Your task to perform on an android device: Open the web browser Image 0: 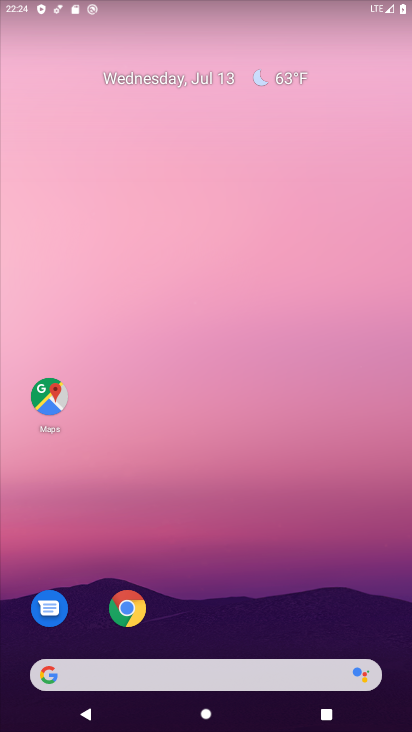
Step 0: drag from (207, 595) to (242, 5)
Your task to perform on an android device: Open the web browser Image 1: 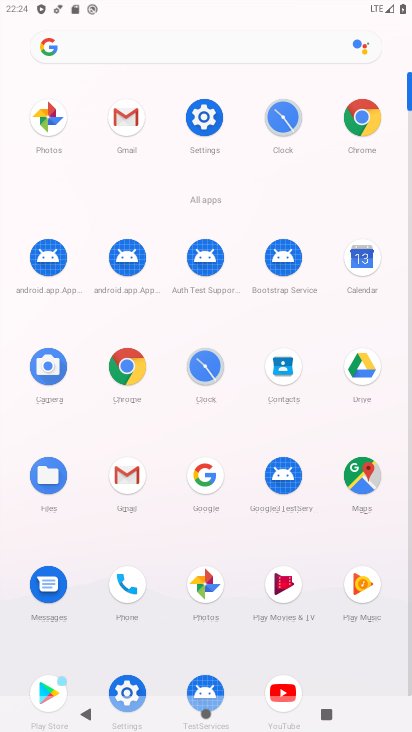
Step 1: click (125, 368)
Your task to perform on an android device: Open the web browser Image 2: 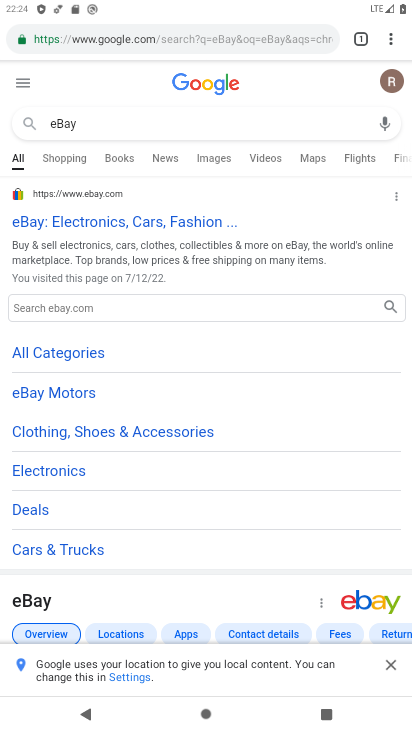
Step 2: task complete